Your task to perform on an android device: Go to display settings Image 0: 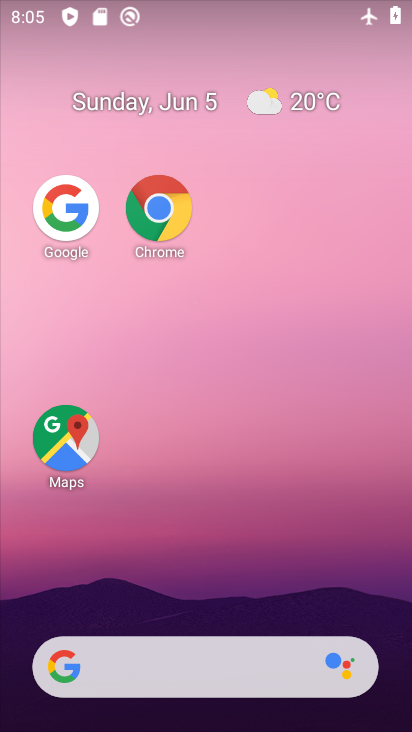
Step 0: drag from (222, 624) to (170, 6)
Your task to perform on an android device: Go to display settings Image 1: 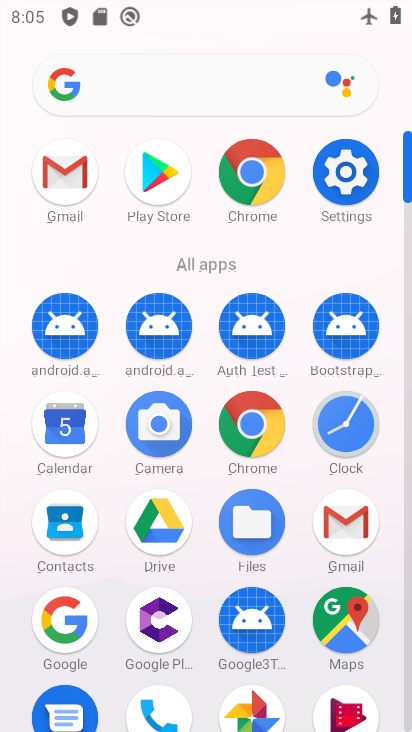
Step 1: click (340, 162)
Your task to perform on an android device: Go to display settings Image 2: 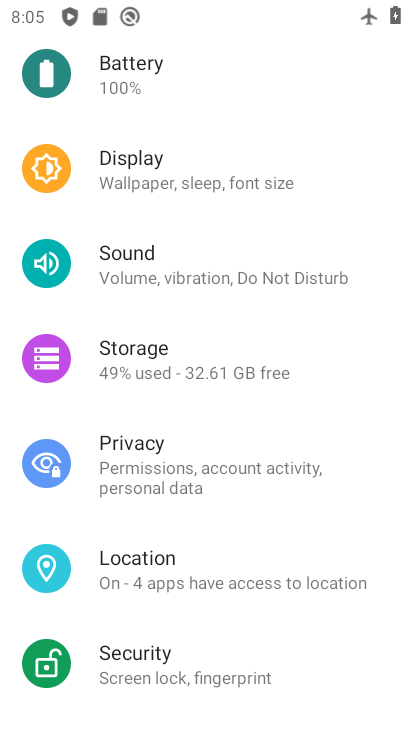
Step 2: click (187, 166)
Your task to perform on an android device: Go to display settings Image 3: 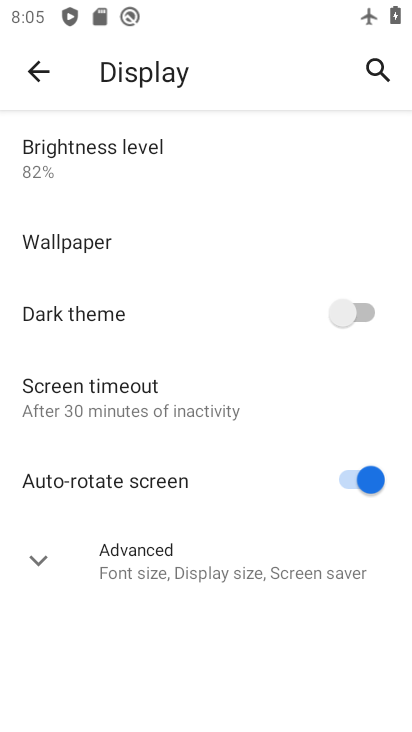
Step 3: task complete